Your task to perform on an android device: turn off sleep mode Image 0: 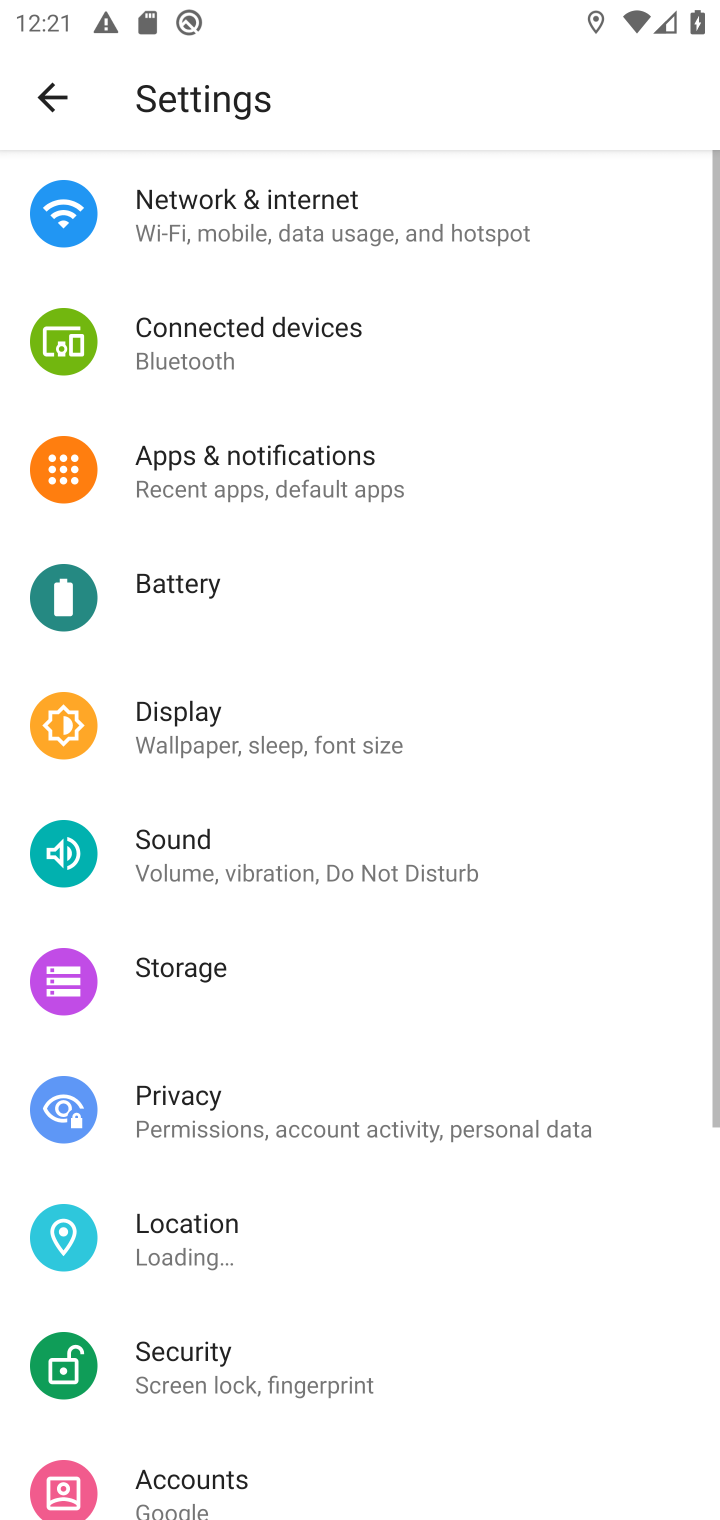
Step 0: press home button
Your task to perform on an android device: turn off sleep mode Image 1: 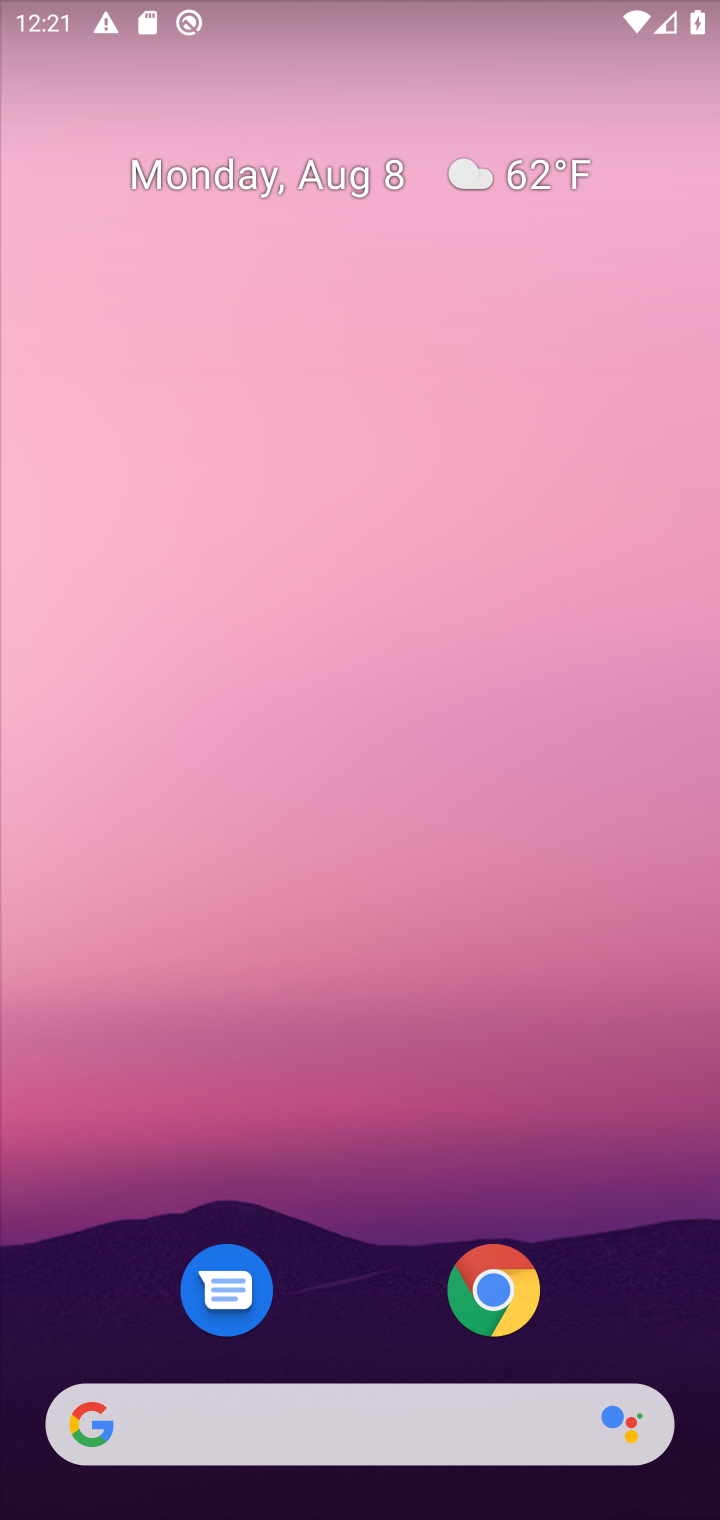
Step 1: drag from (348, 505) to (372, 122)
Your task to perform on an android device: turn off sleep mode Image 2: 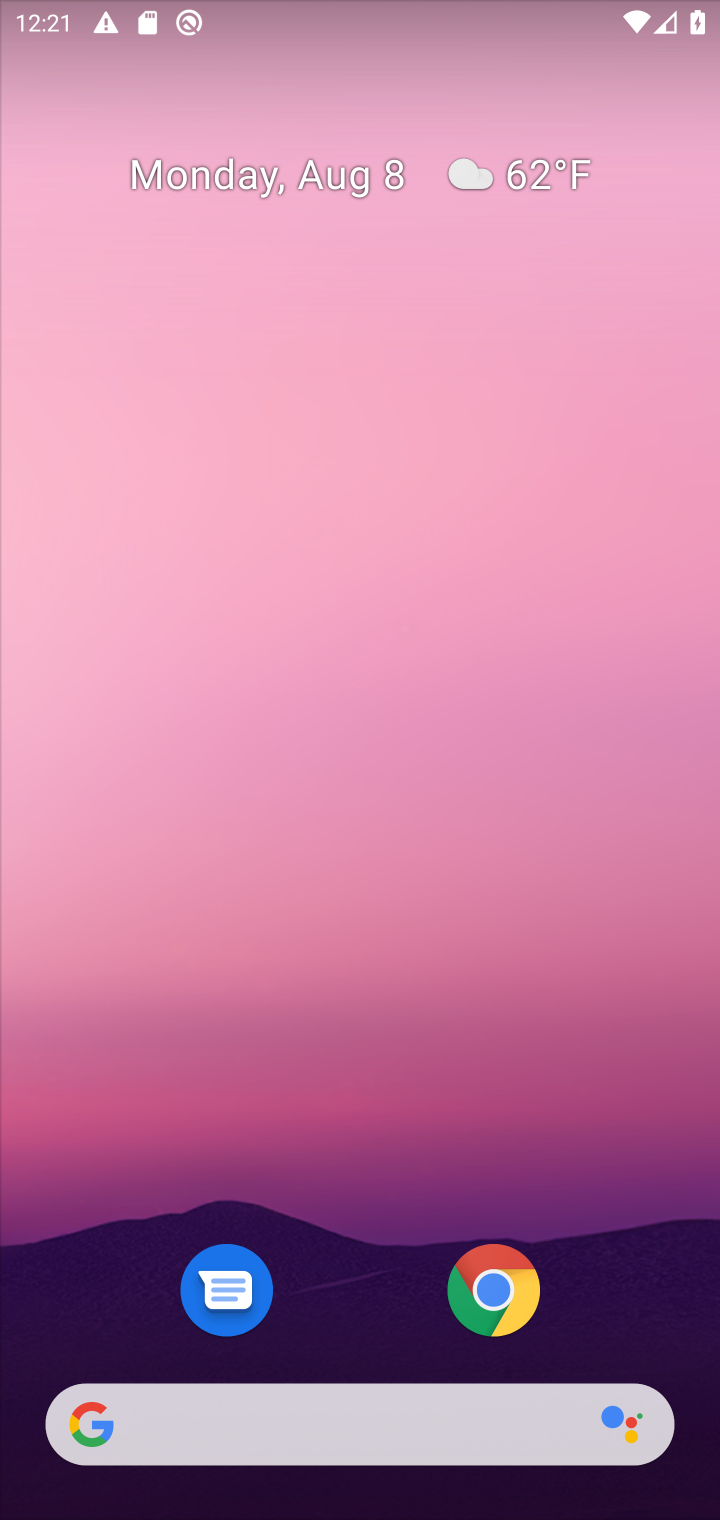
Step 2: drag from (329, 930) to (375, 537)
Your task to perform on an android device: turn off sleep mode Image 3: 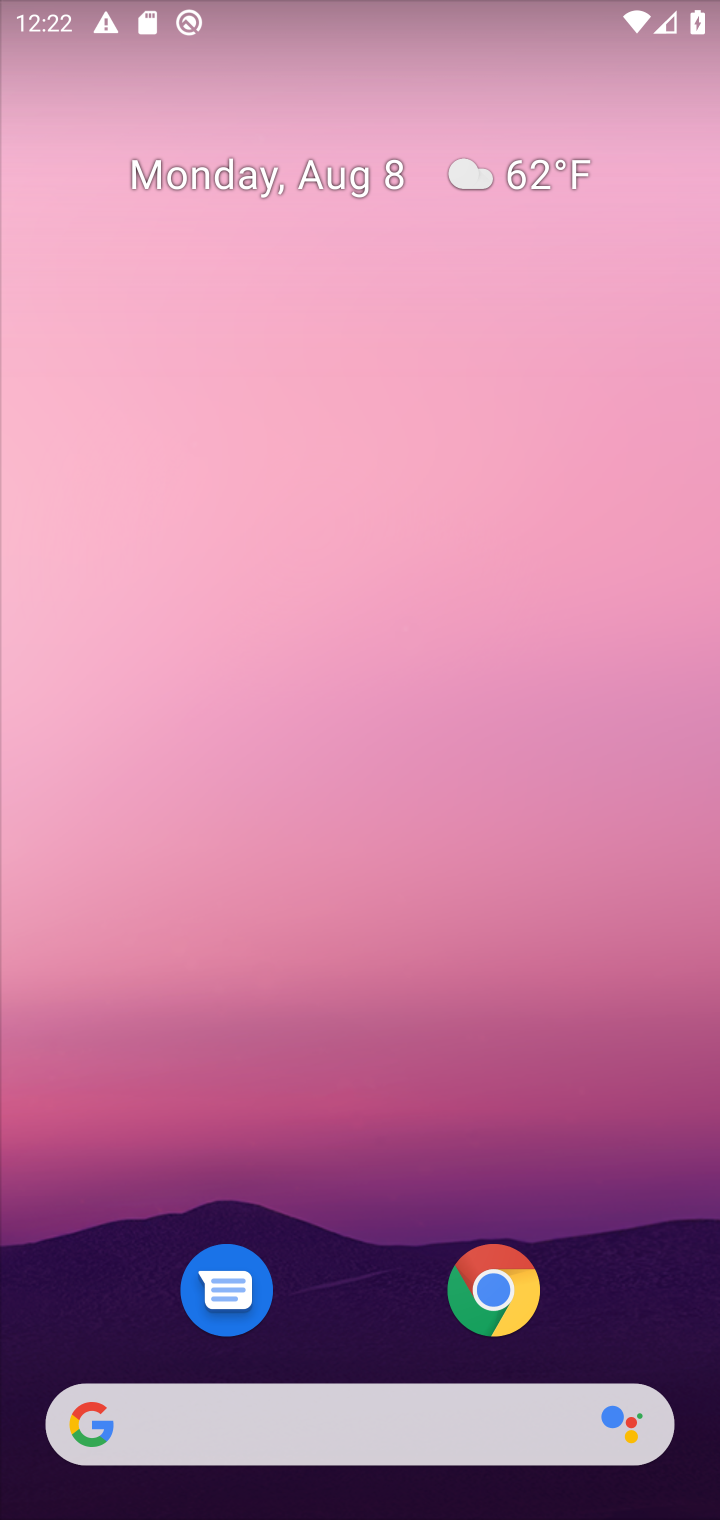
Step 3: drag from (379, 1368) to (416, 383)
Your task to perform on an android device: turn off sleep mode Image 4: 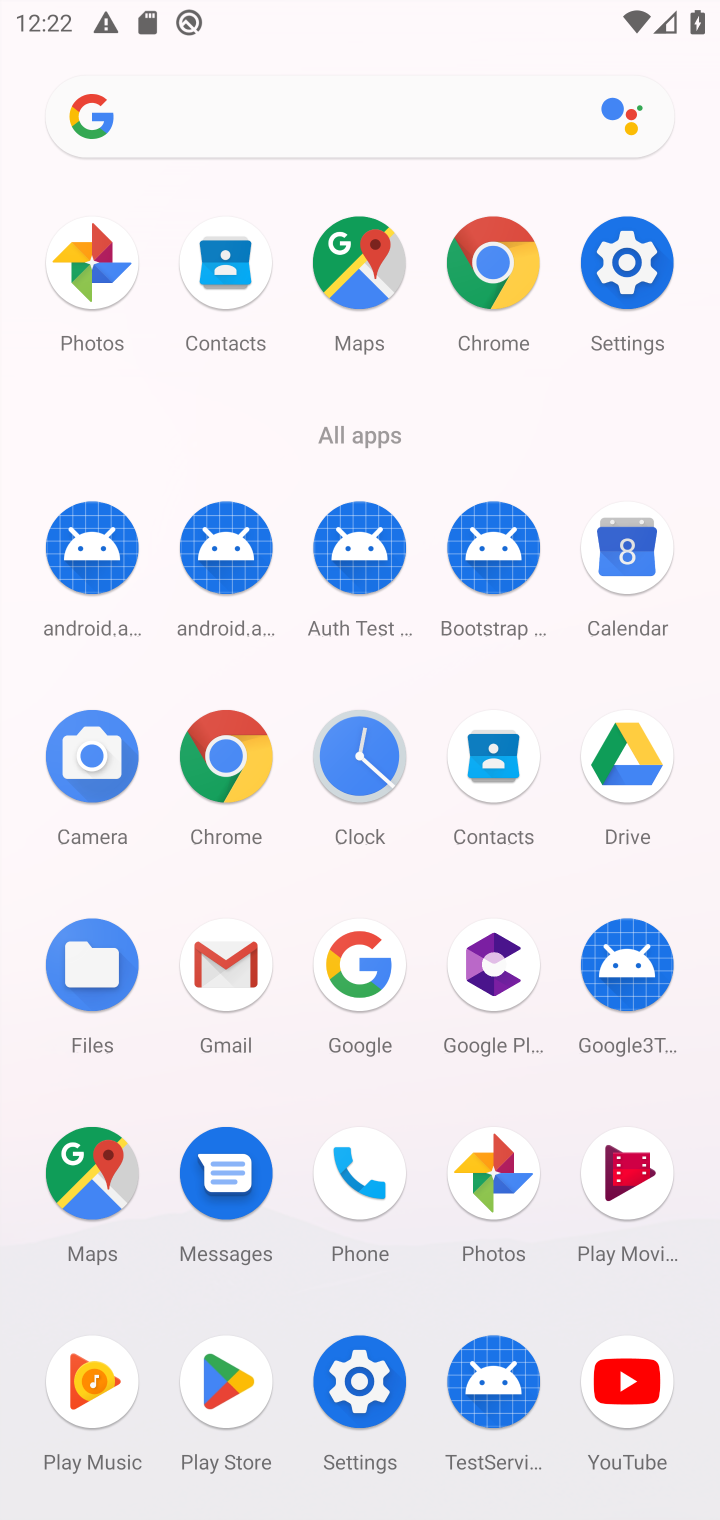
Step 4: click (618, 281)
Your task to perform on an android device: turn off sleep mode Image 5: 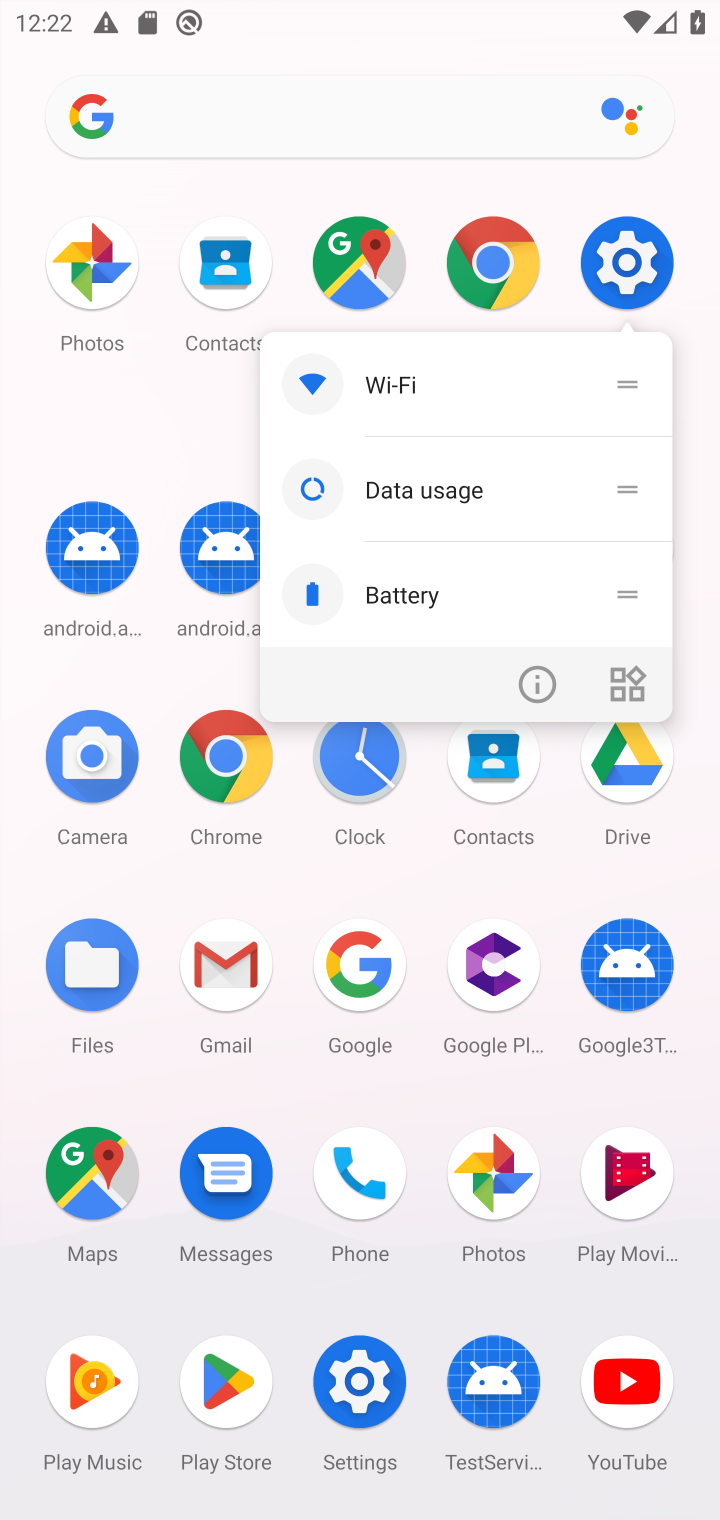
Step 5: click (632, 242)
Your task to perform on an android device: turn off sleep mode Image 6: 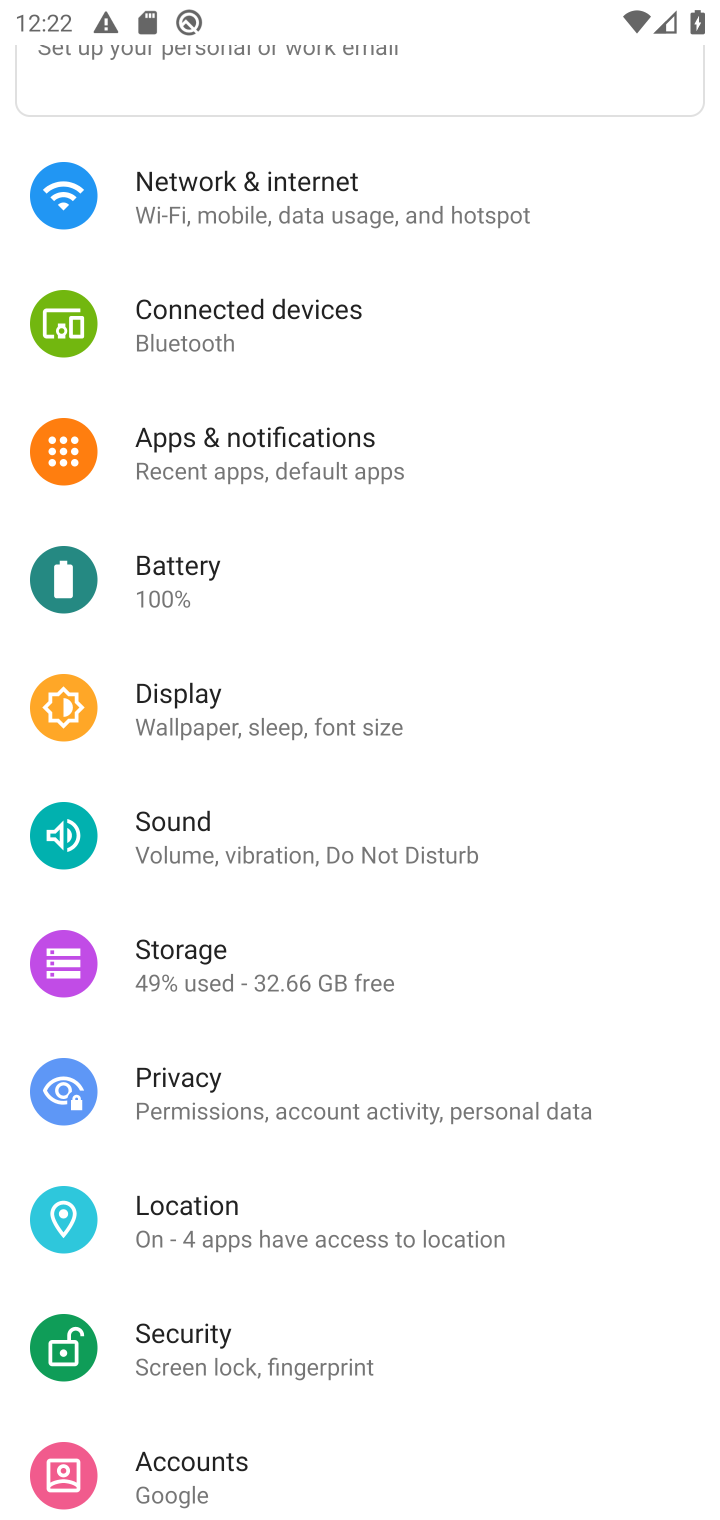
Step 6: click (630, 262)
Your task to perform on an android device: turn off sleep mode Image 7: 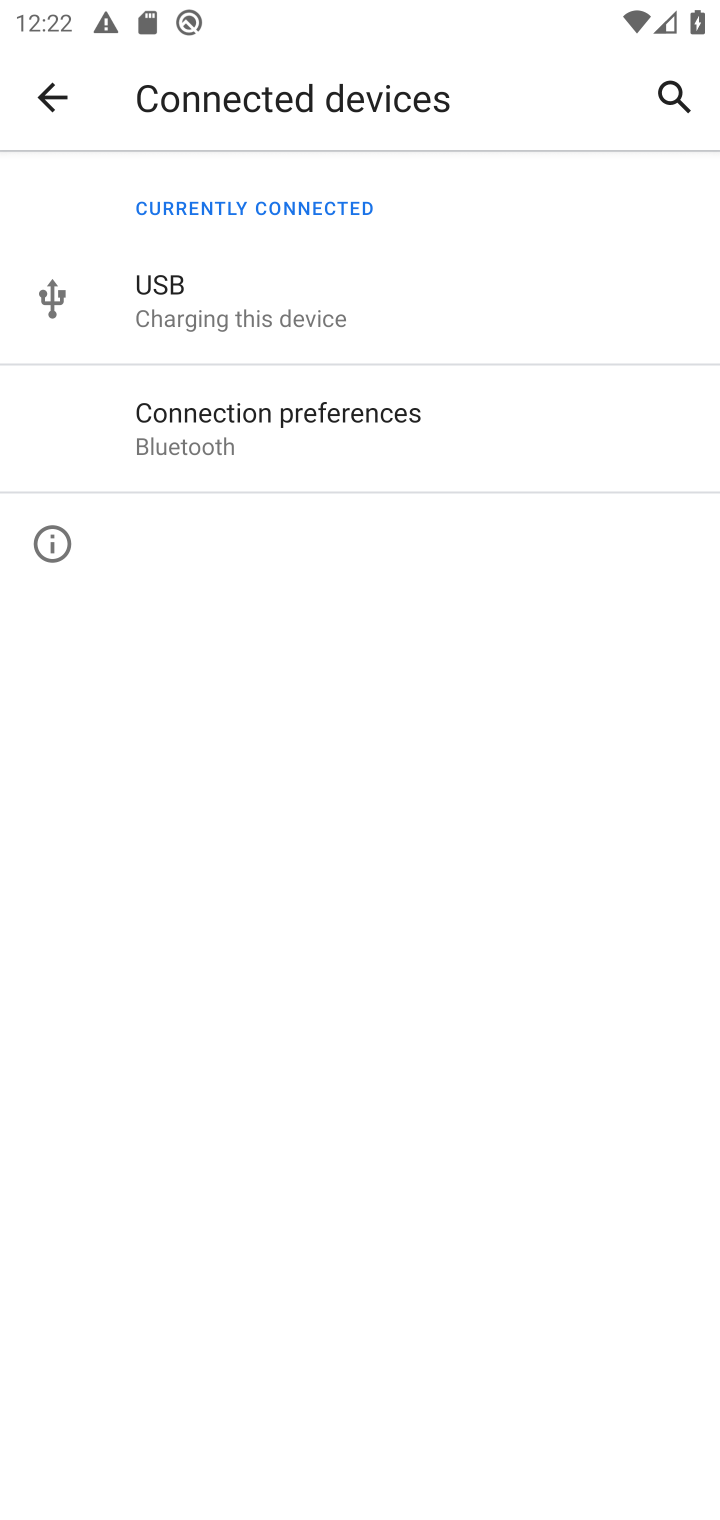
Step 7: drag from (362, 563) to (385, 1184)
Your task to perform on an android device: turn off sleep mode Image 8: 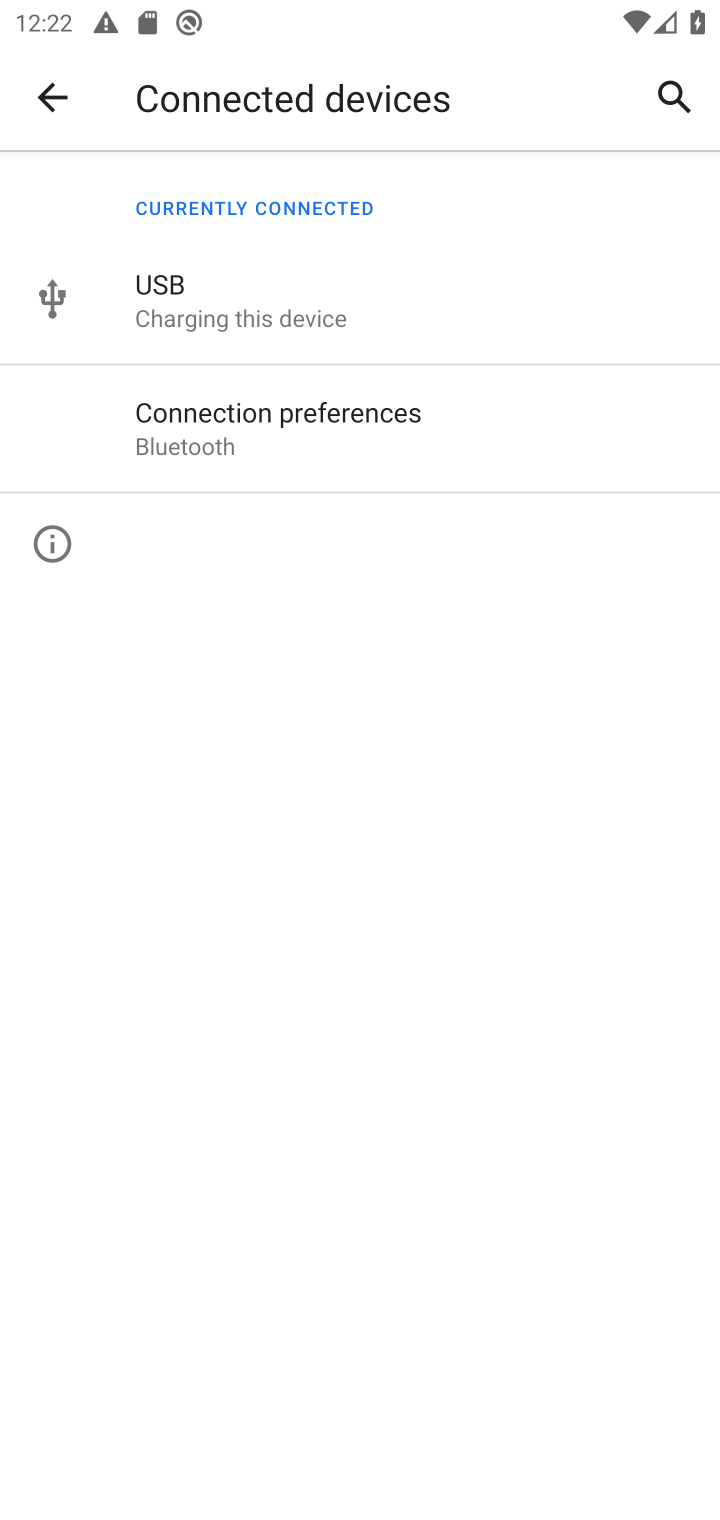
Step 8: click (50, 74)
Your task to perform on an android device: turn off sleep mode Image 9: 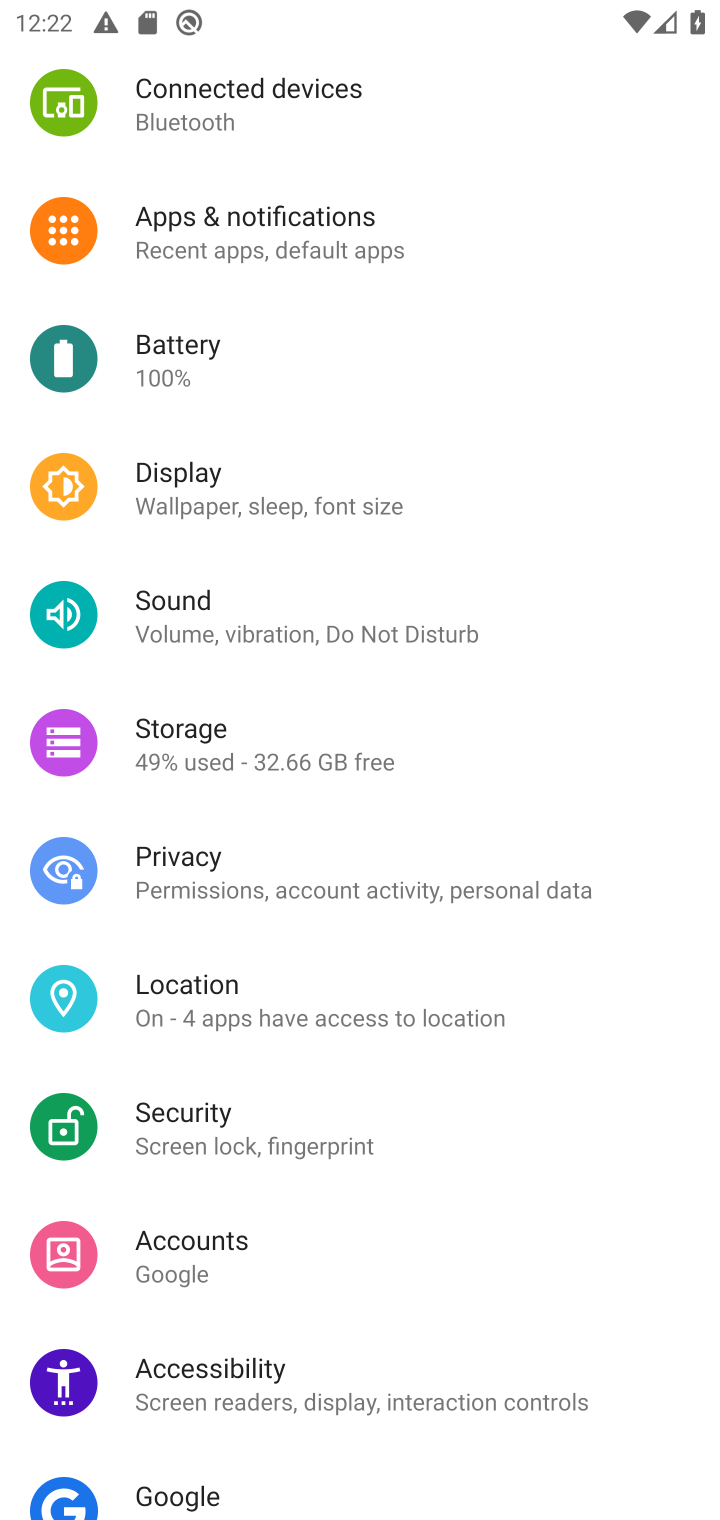
Step 9: click (62, 104)
Your task to perform on an android device: turn off sleep mode Image 10: 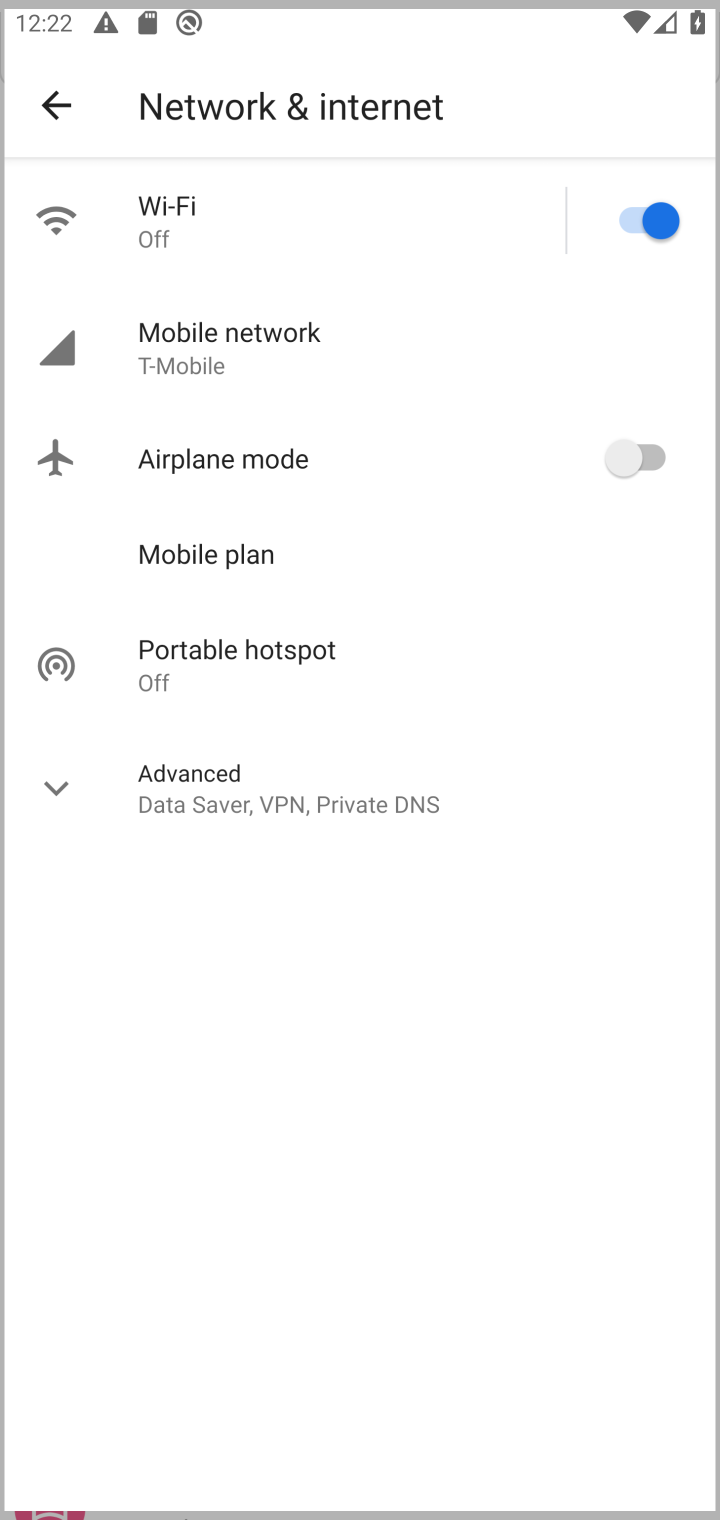
Step 10: click (62, 104)
Your task to perform on an android device: turn off sleep mode Image 11: 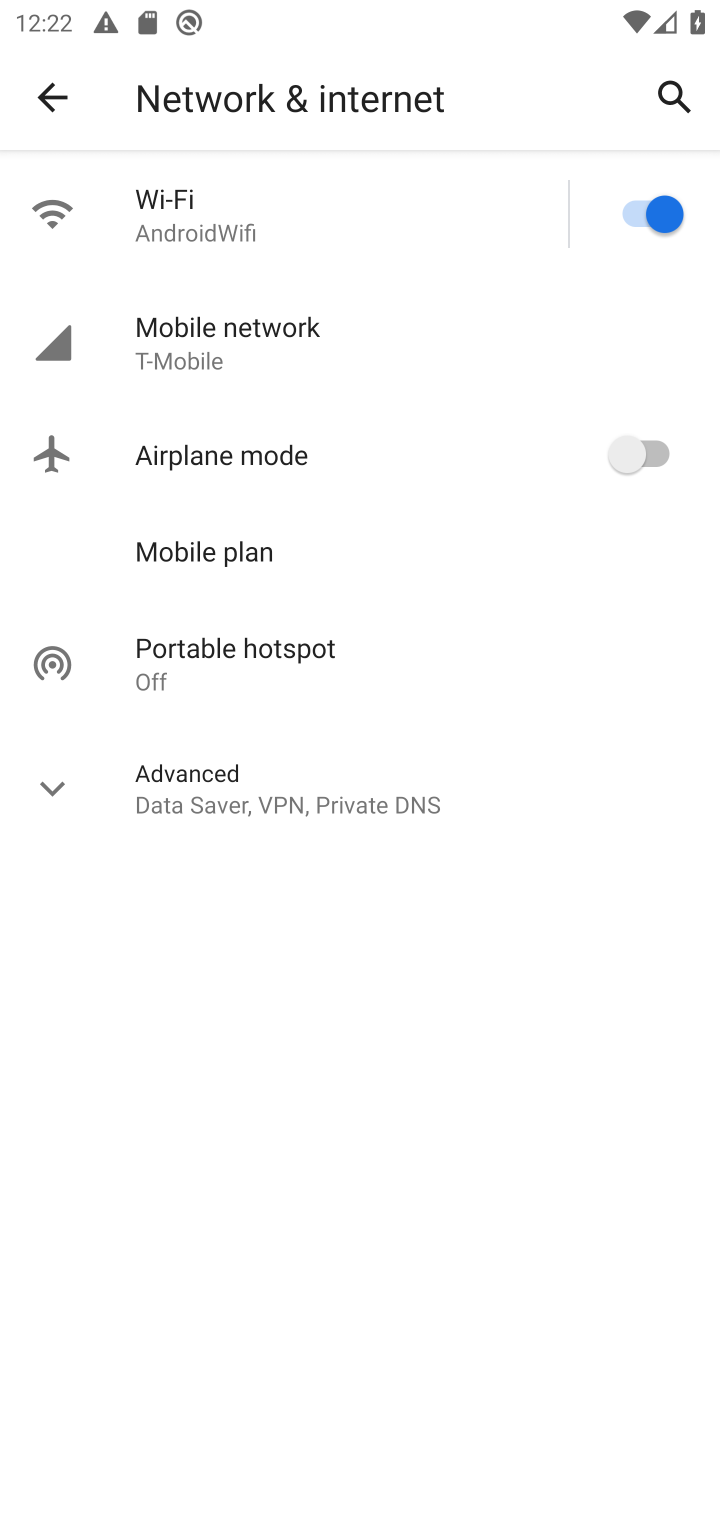
Step 11: drag from (201, 155) to (184, 778)
Your task to perform on an android device: turn off sleep mode Image 12: 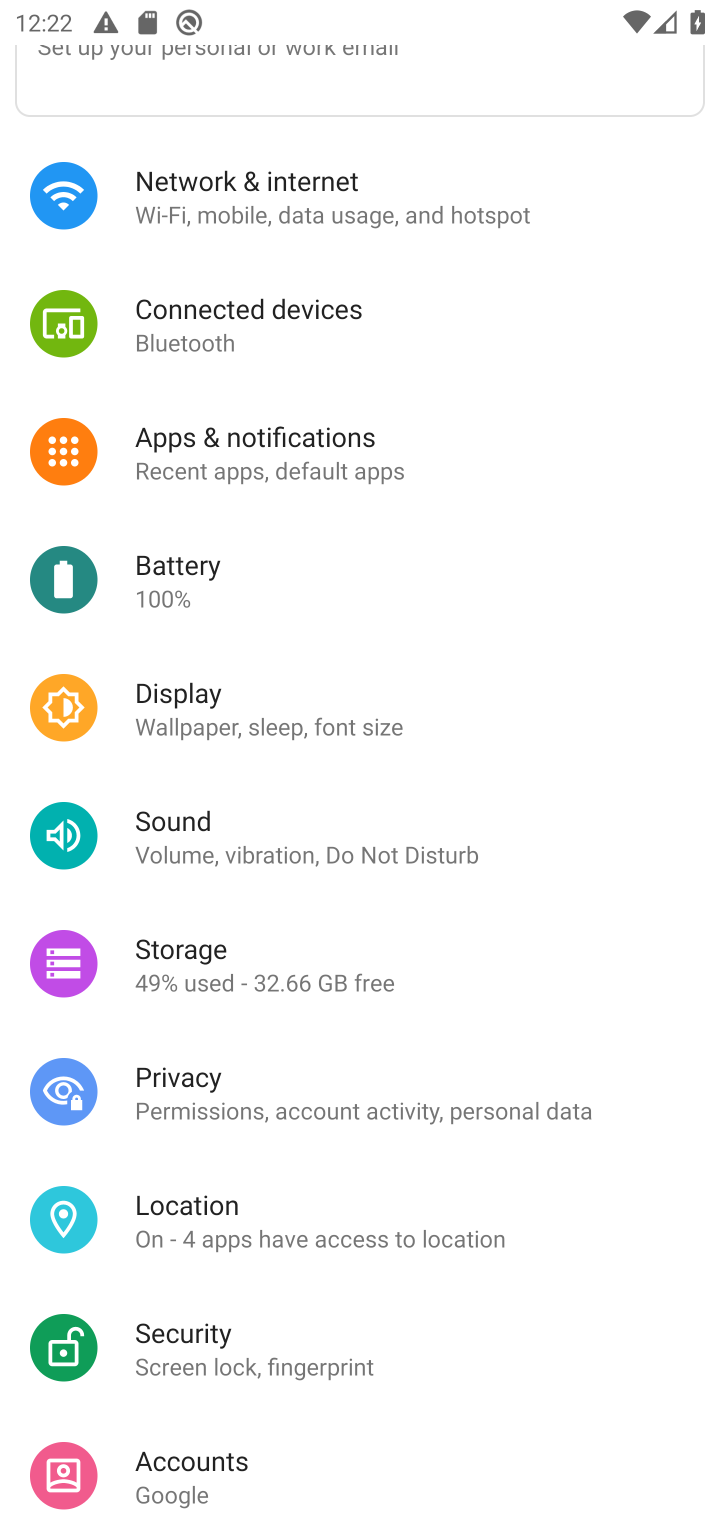
Step 12: drag from (513, 424) to (452, 1062)
Your task to perform on an android device: turn off sleep mode Image 13: 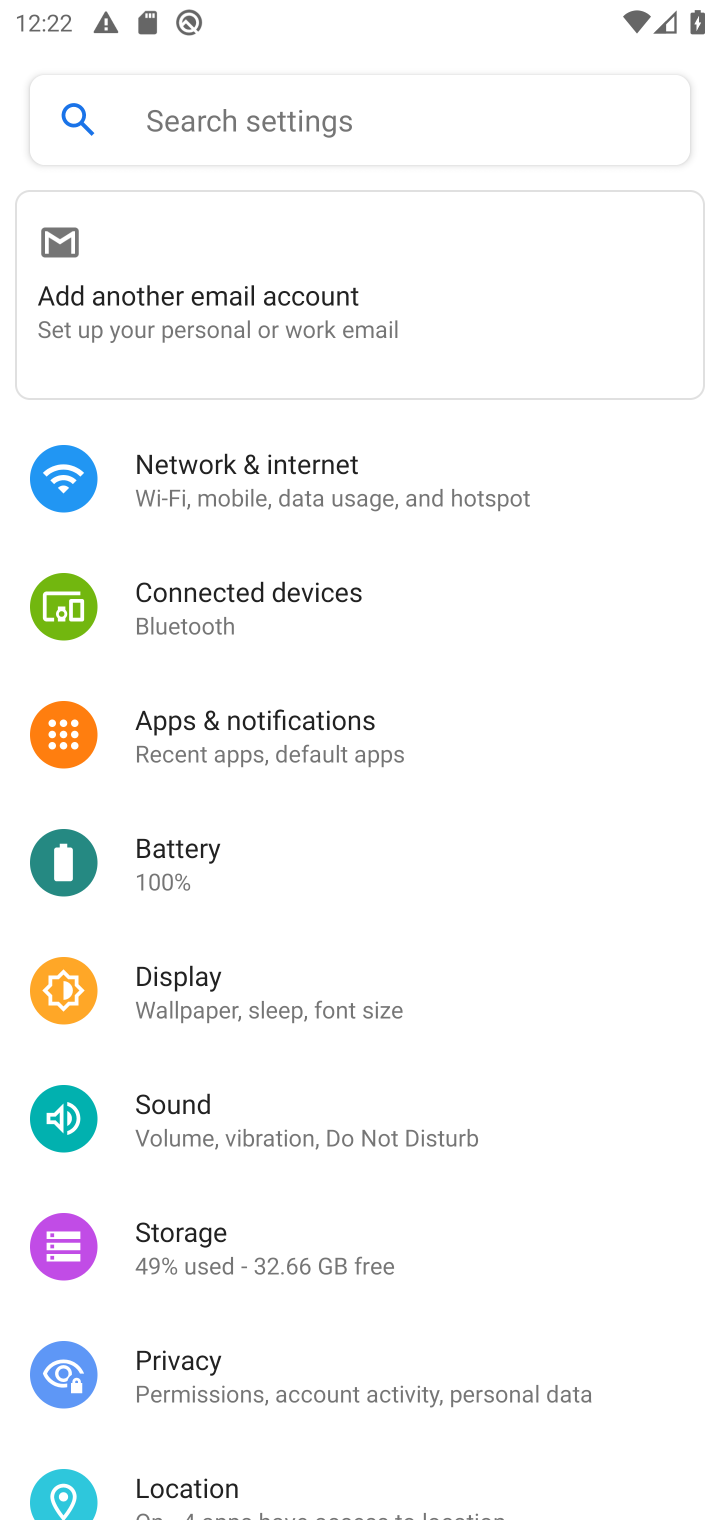
Step 13: drag from (390, 421) to (450, 1280)
Your task to perform on an android device: turn off sleep mode Image 14: 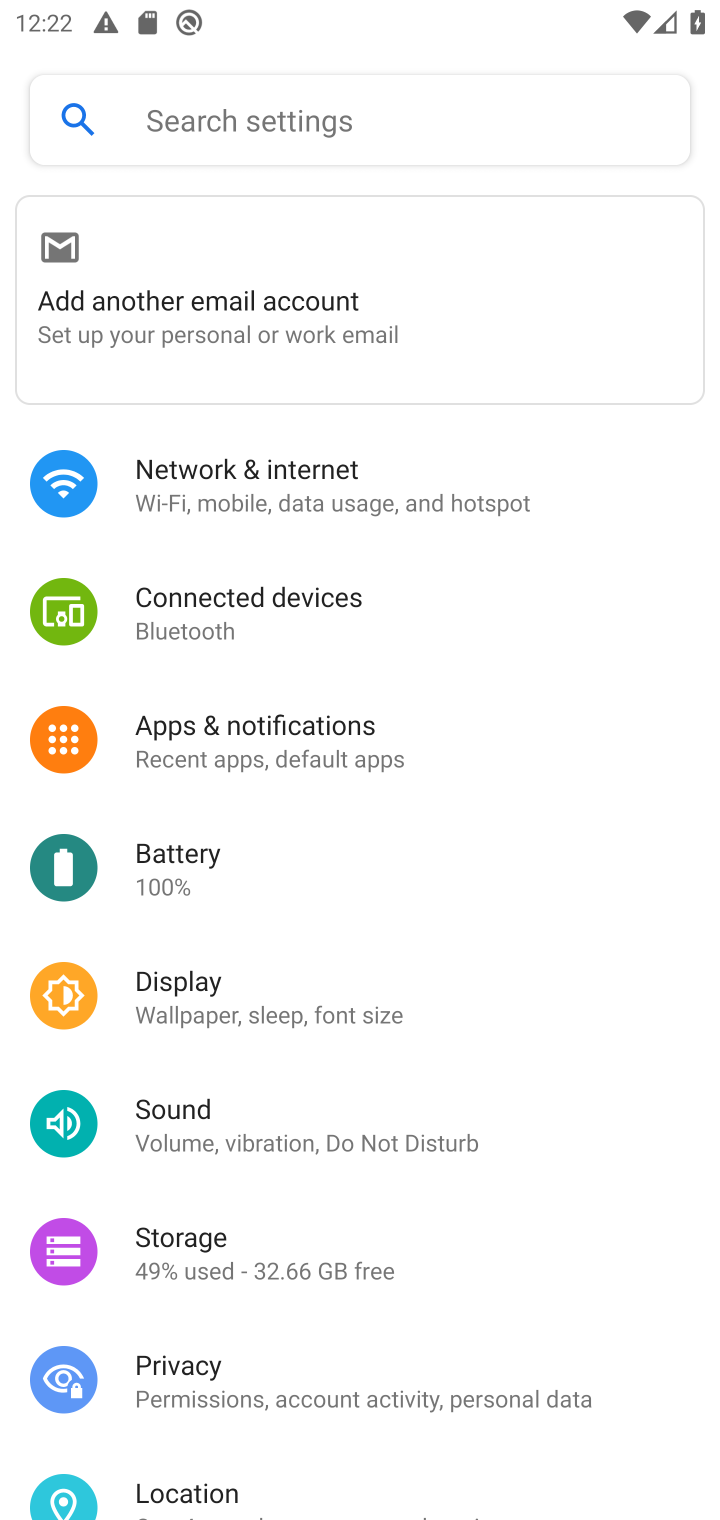
Step 14: click (355, 105)
Your task to perform on an android device: turn off sleep mode Image 15: 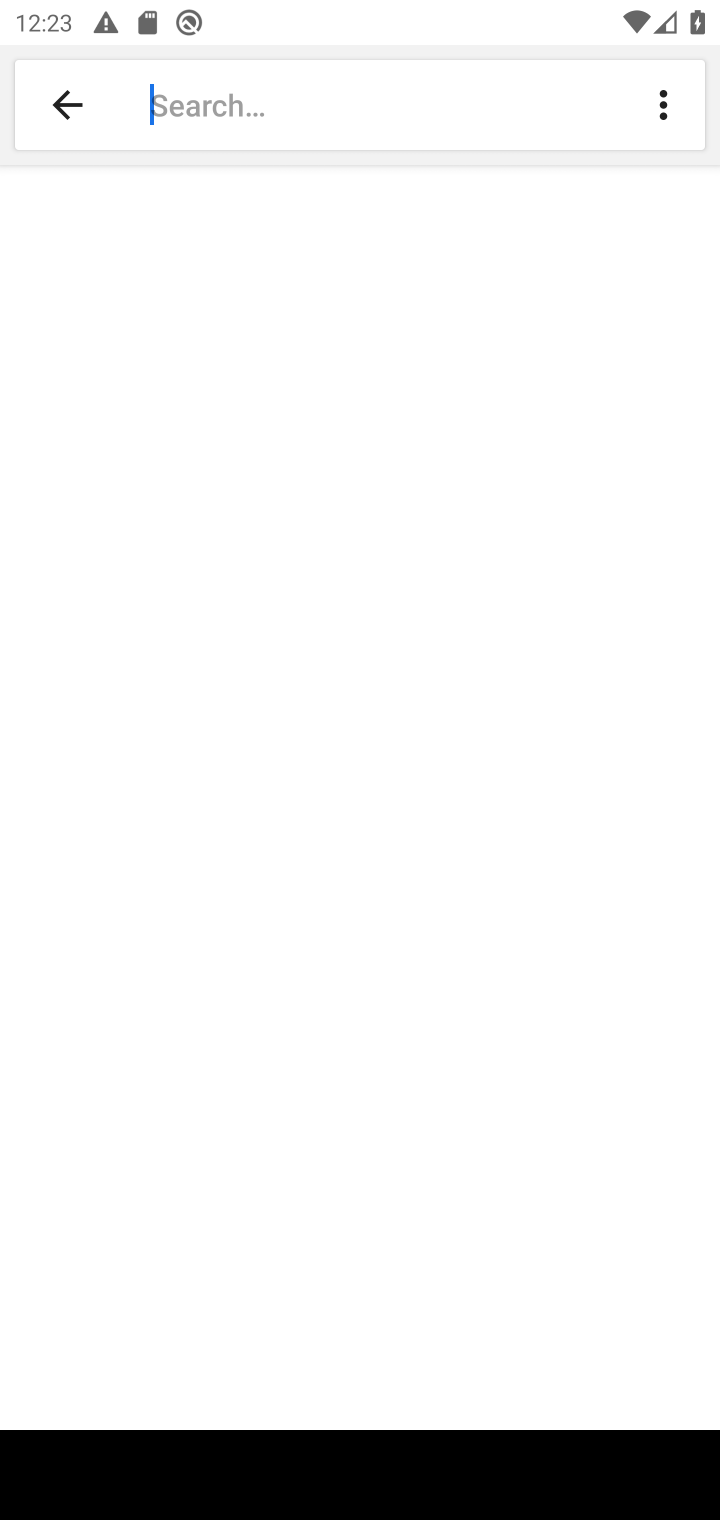
Step 15: type "sleep mode"
Your task to perform on an android device: turn off sleep mode Image 16: 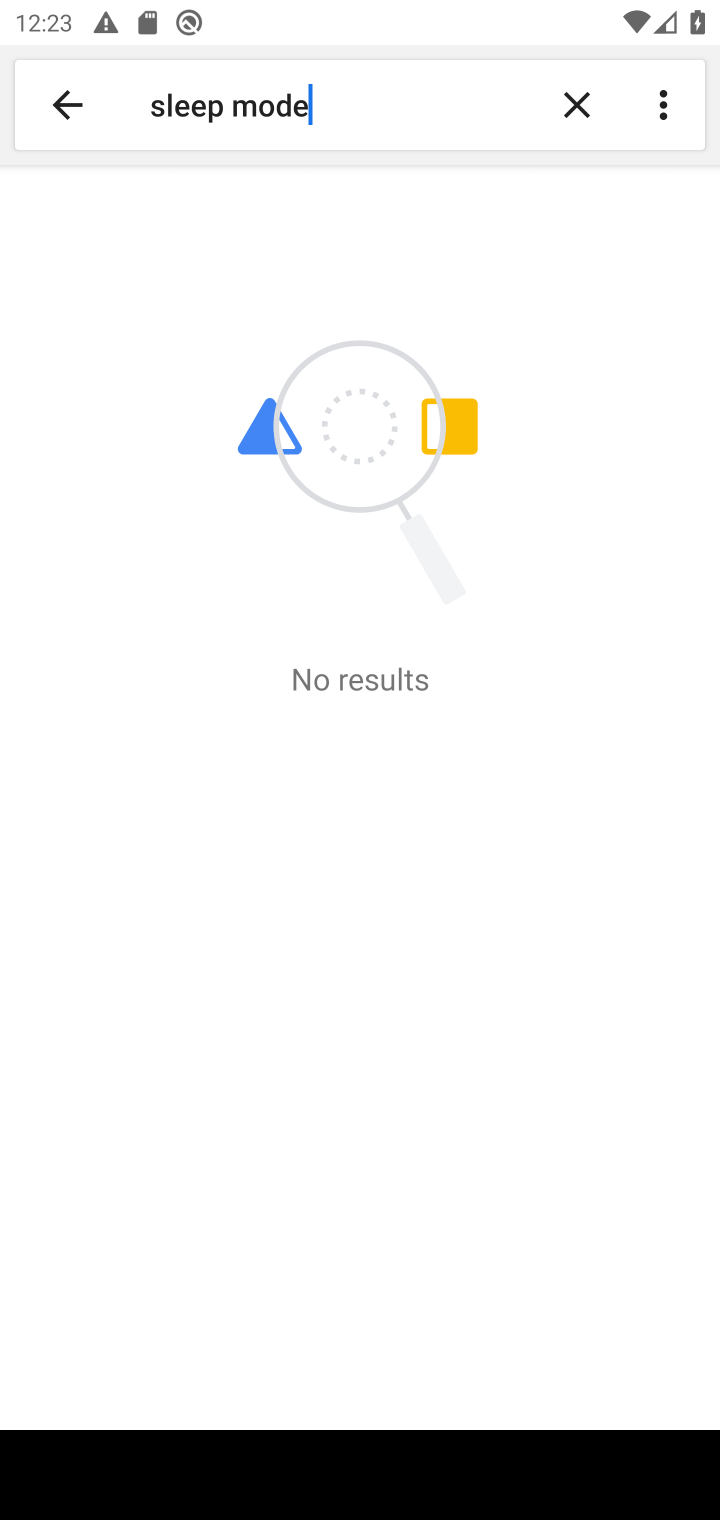
Step 16: task complete